Your task to perform on an android device: Play the last video I watched on Youtube Image 0: 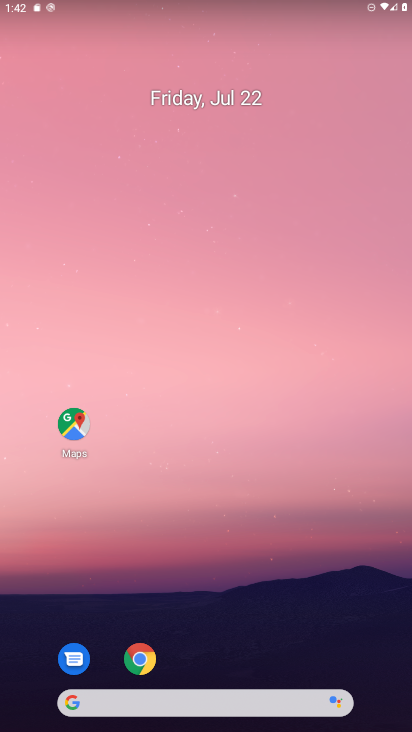
Step 0: drag from (194, 703) to (248, 159)
Your task to perform on an android device: Play the last video I watched on Youtube Image 1: 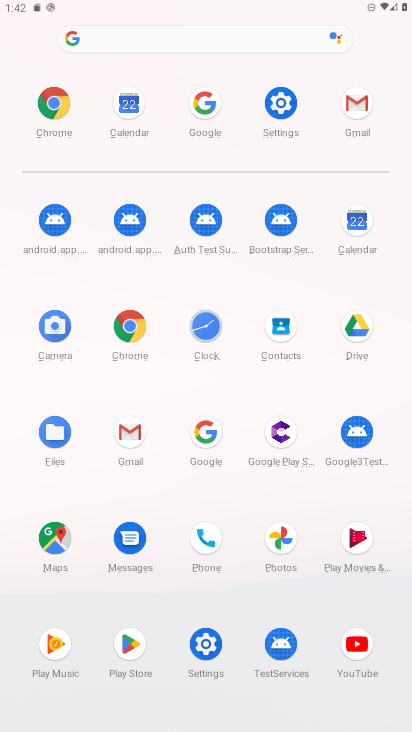
Step 1: click (355, 645)
Your task to perform on an android device: Play the last video I watched on Youtube Image 2: 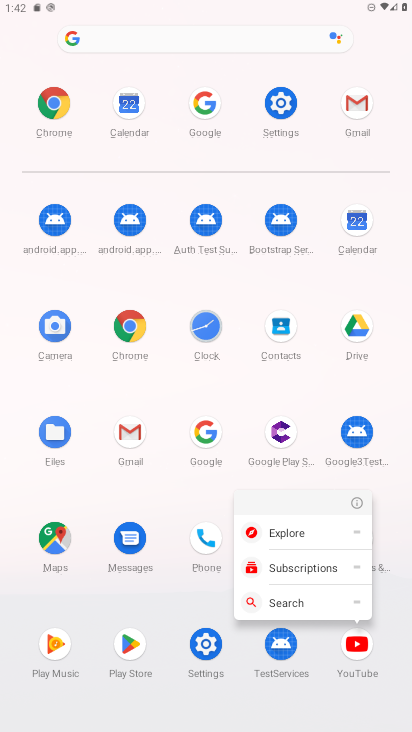
Step 2: click (355, 645)
Your task to perform on an android device: Play the last video I watched on Youtube Image 3: 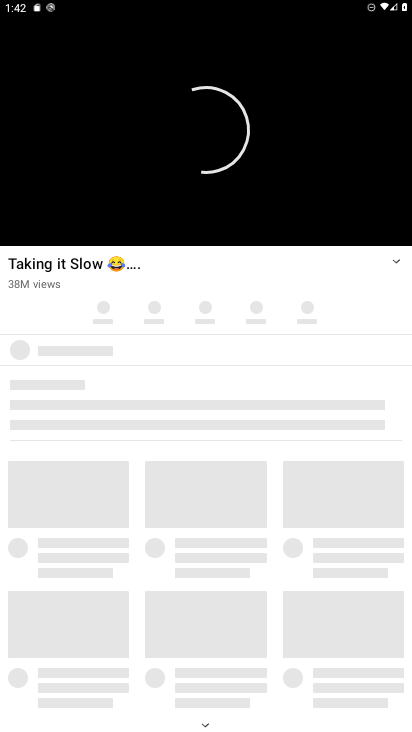
Step 3: press back button
Your task to perform on an android device: Play the last video I watched on Youtube Image 4: 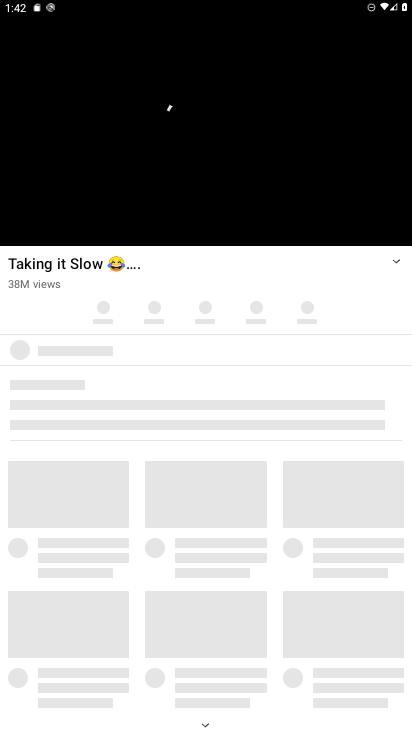
Step 4: press back button
Your task to perform on an android device: Play the last video I watched on Youtube Image 5: 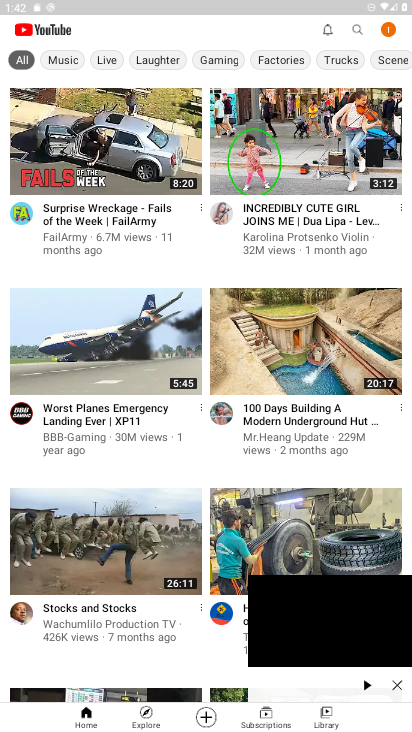
Step 5: click (398, 683)
Your task to perform on an android device: Play the last video I watched on Youtube Image 6: 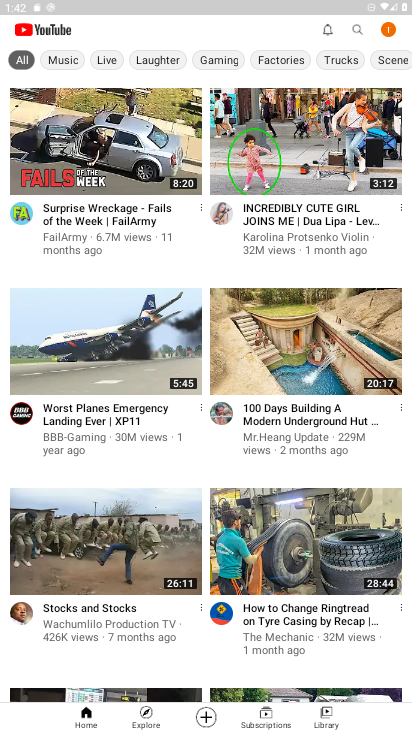
Step 6: click (327, 711)
Your task to perform on an android device: Play the last video I watched on Youtube Image 7: 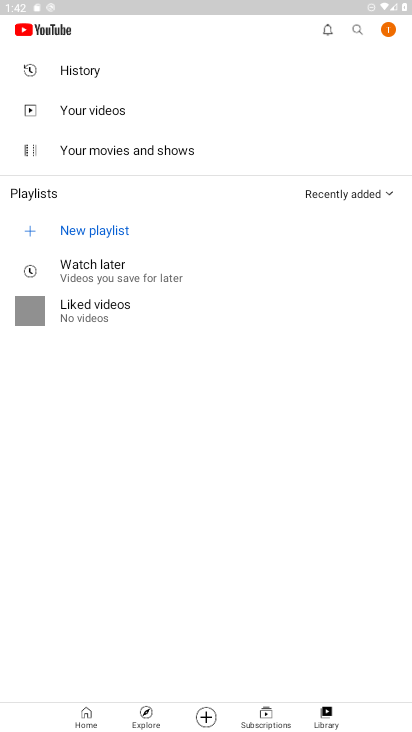
Step 7: click (77, 63)
Your task to perform on an android device: Play the last video I watched on Youtube Image 8: 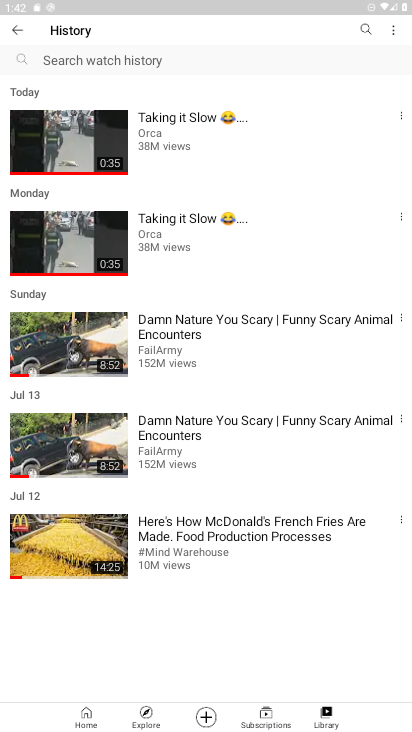
Step 8: click (79, 157)
Your task to perform on an android device: Play the last video I watched on Youtube Image 9: 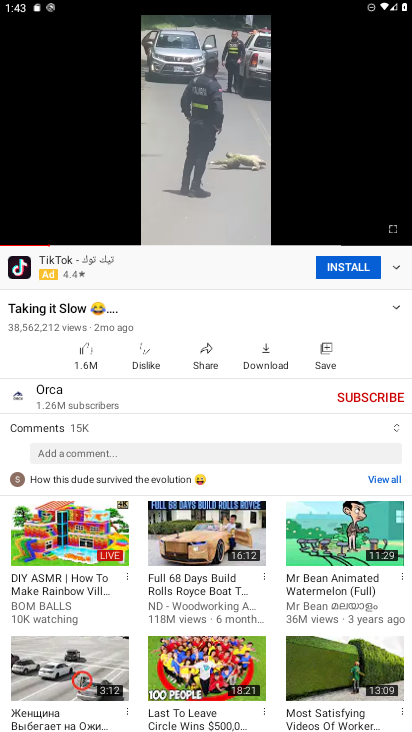
Step 9: click (229, 155)
Your task to perform on an android device: Play the last video I watched on Youtube Image 10: 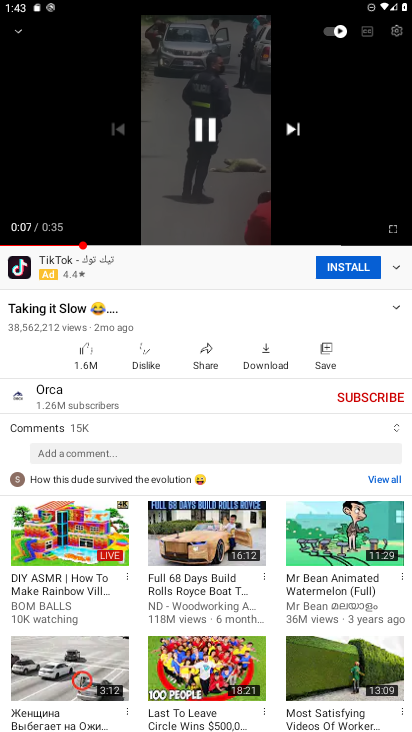
Step 10: click (208, 123)
Your task to perform on an android device: Play the last video I watched on Youtube Image 11: 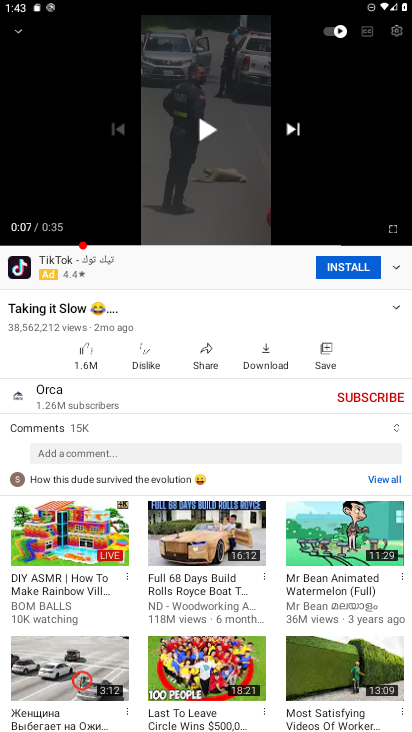
Step 11: task complete